Your task to perform on an android device: turn off javascript in the chrome app Image 0: 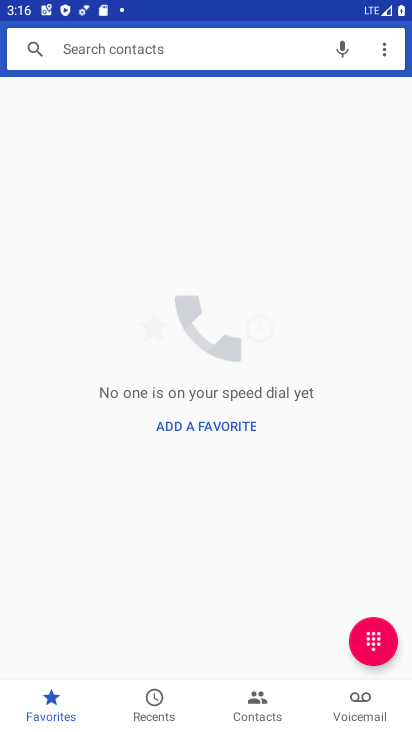
Step 0: press home button
Your task to perform on an android device: turn off javascript in the chrome app Image 1: 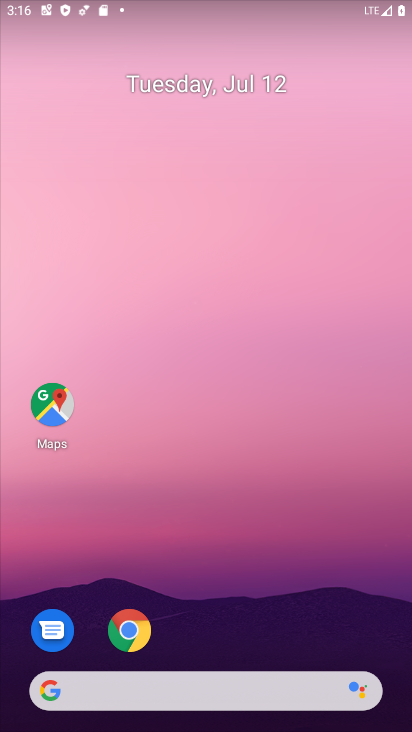
Step 1: drag from (334, 684) to (367, 22)
Your task to perform on an android device: turn off javascript in the chrome app Image 2: 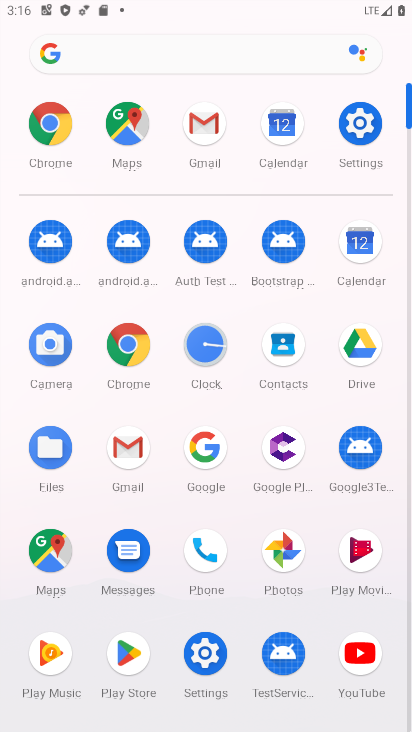
Step 2: click (121, 352)
Your task to perform on an android device: turn off javascript in the chrome app Image 3: 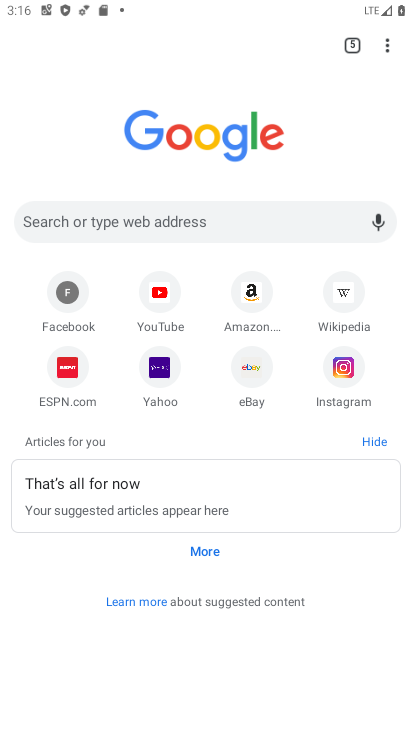
Step 3: click (389, 41)
Your task to perform on an android device: turn off javascript in the chrome app Image 4: 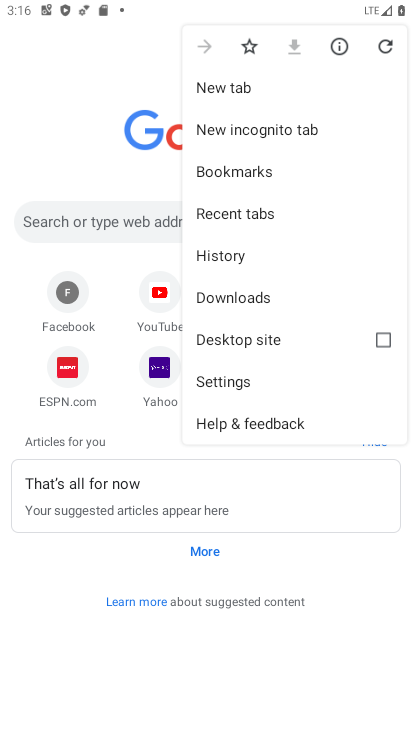
Step 4: click (248, 381)
Your task to perform on an android device: turn off javascript in the chrome app Image 5: 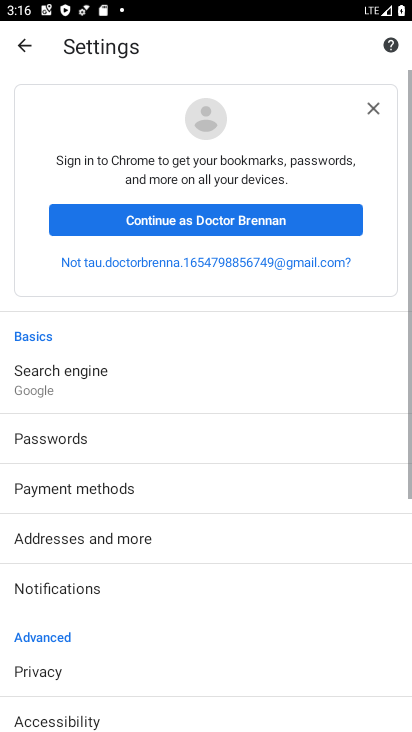
Step 5: drag from (95, 654) to (148, 161)
Your task to perform on an android device: turn off javascript in the chrome app Image 6: 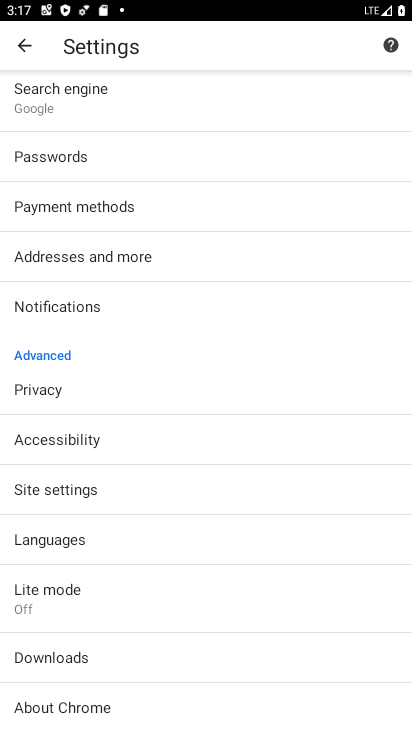
Step 6: click (158, 484)
Your task to perform on an android device: turn off javascript in the chrome app Image 7: 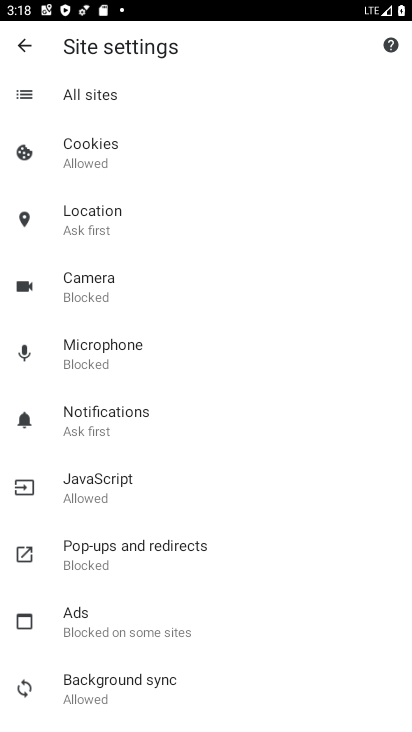
Step 7: click (147, 484)
Your task to perform on an android device: turn off javascript in the chrome app Image 8: 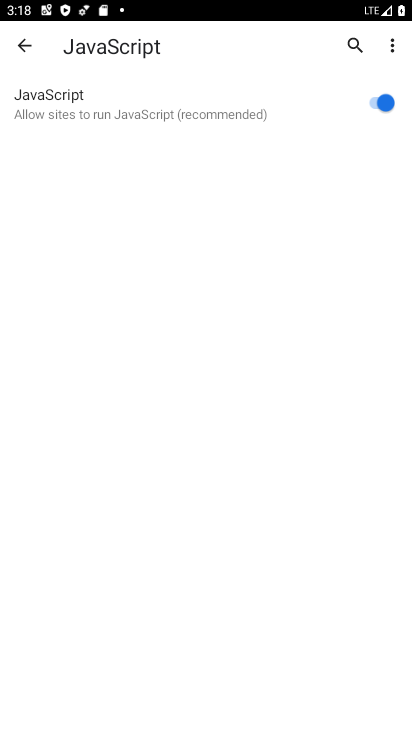
Step 8: click (379, 100)
Your task to perform on an android device: turn off javascript in the chrome app Image 9: 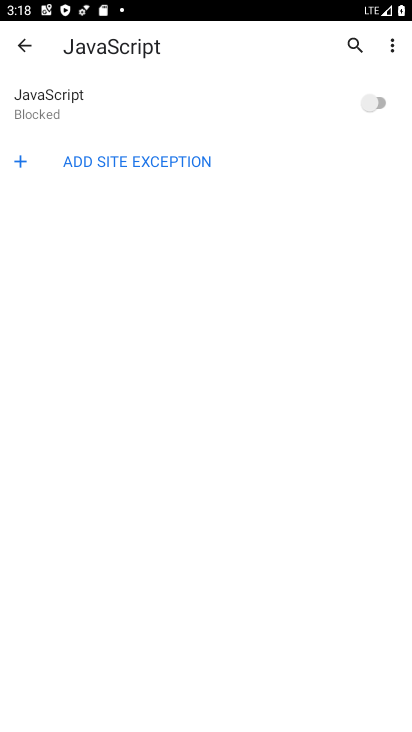
Step 9: task complete